Your task to perform on an android device: Go to privacy settings Image 0: 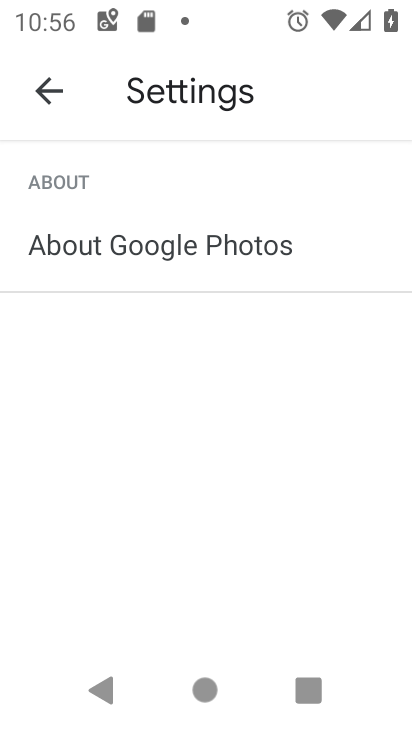
Step 0: press home button
Your task to perform on an android device: Go to privacy settings Image 1: 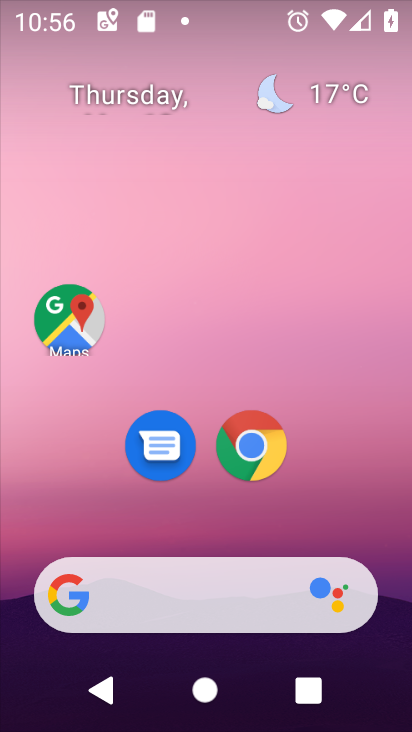
Step 1: drag from (210, 509) to (237, 157)
Your task to perform on an android device: Go to privacy settings Image 2: 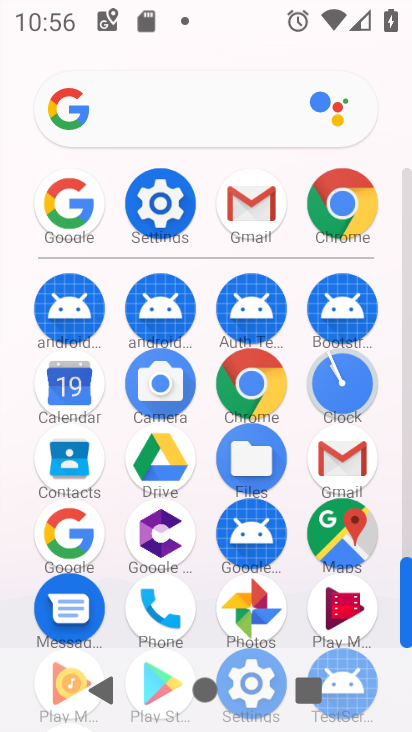
Step 2: click (172, 197)
Your task to perform on an android device: Go to privacy settings Image 3: 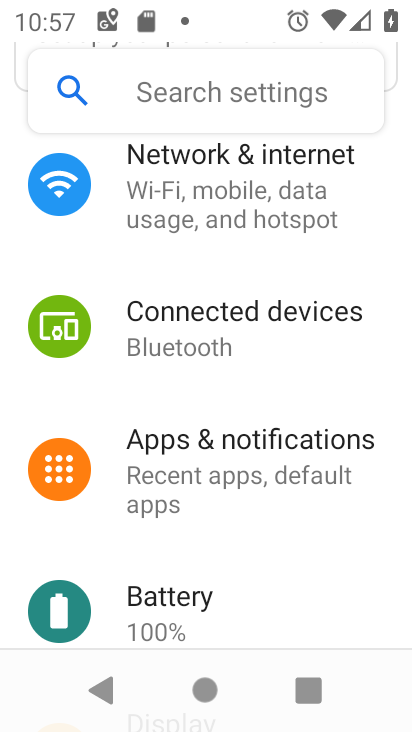
Step 3: drag from (240, 560) to (306, 178)
Your task to perform on an android device: Go to privacy settings Image 4: 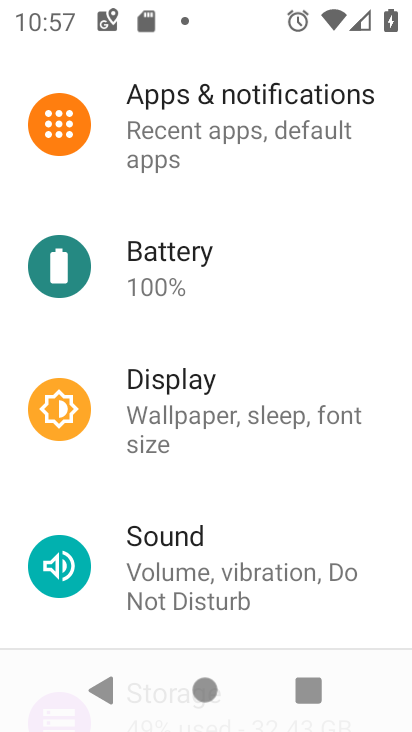
Step 4: drag from (304, 550) to (350, 152)
Your task to perform on an android device: Go to privacy settings Image 5: 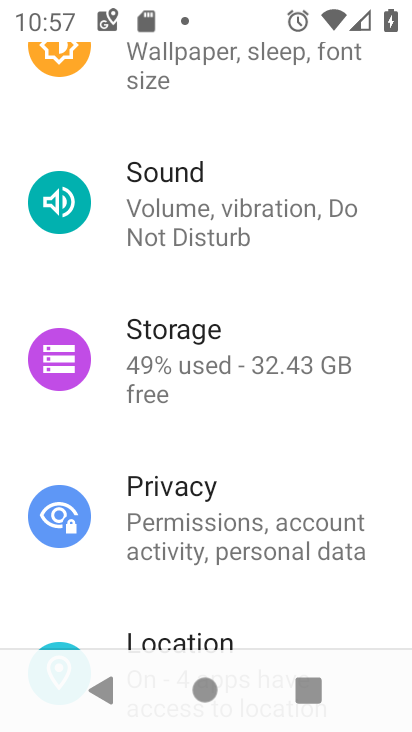
Step 5: click (272, 508)
Your task to perform on an android device: Go to privacy settings Image 6: 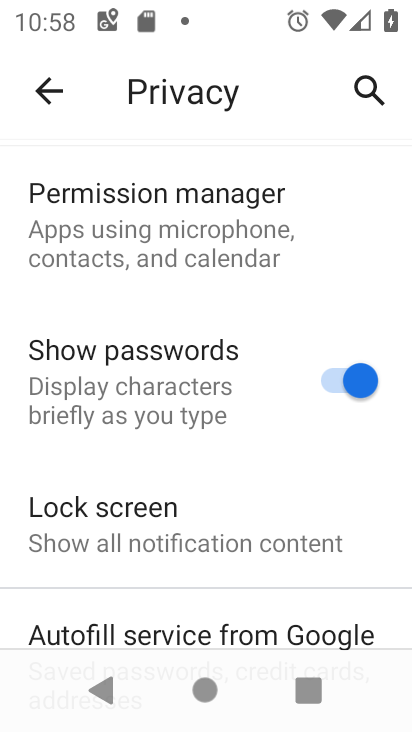
Step 6: task complete